Your task to perform on an android device: Open Chrome and go to settings Image 0: 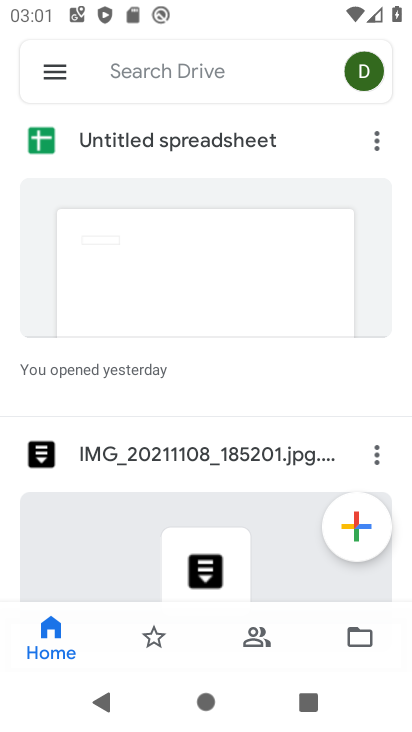
Step 0: press home button
Your task to perform on an android device: Open Chrome and go to settings Image 1: 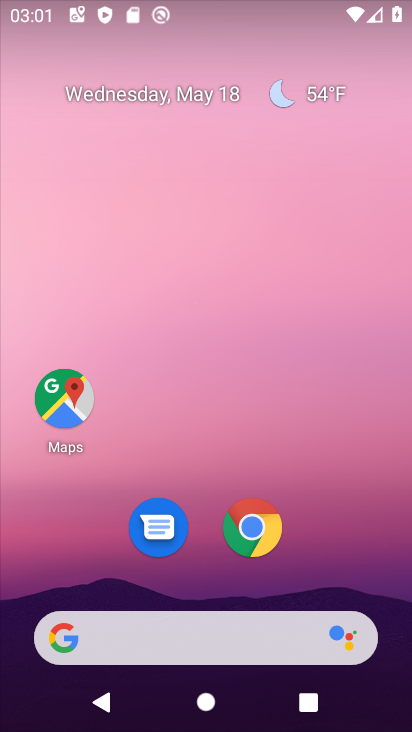
Step 1: drag from (216, 617) to (256, 6)
Your task to perform on an android device: Open Chrome and go to settings Image 2: 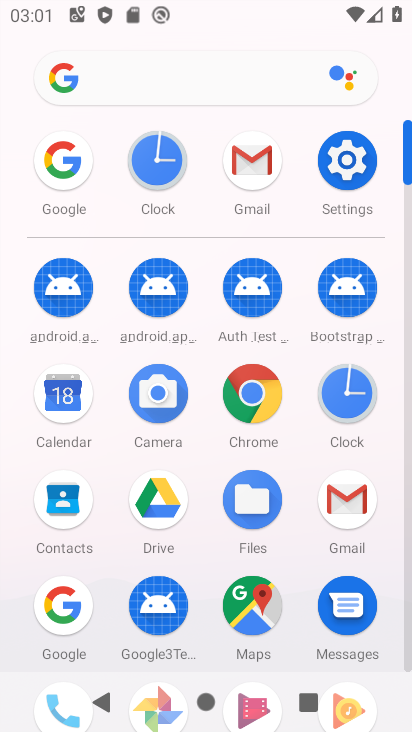
Step 2: click (262, 387)
Your task to perform on an android device: Open Chrome and go to settings Image 3: 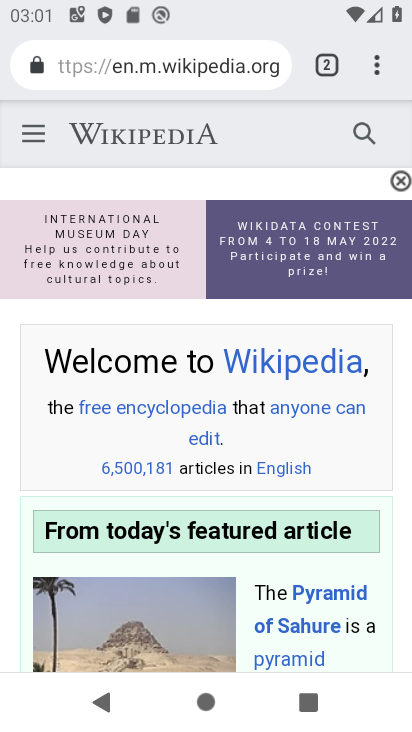
Step 3: click (377, 65)
Your task to perform on an android device: Open Chrome and go to settings Image 4: 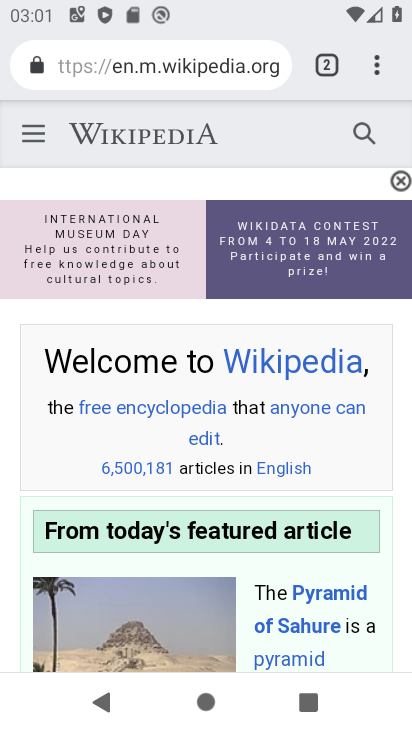
Step 4: task complete